Your task to perform on an android device: change the upload size in google photos Image 0: 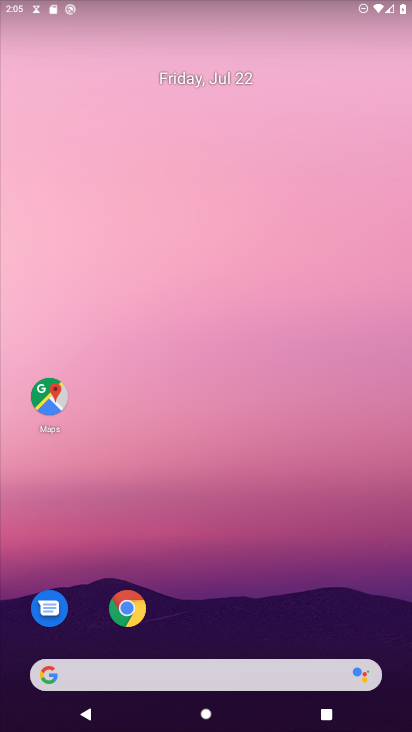
Step 0: drag from (224, 588) to (201, 382)
Your task to perform on an android device: change the upload size in google photos Image 1: 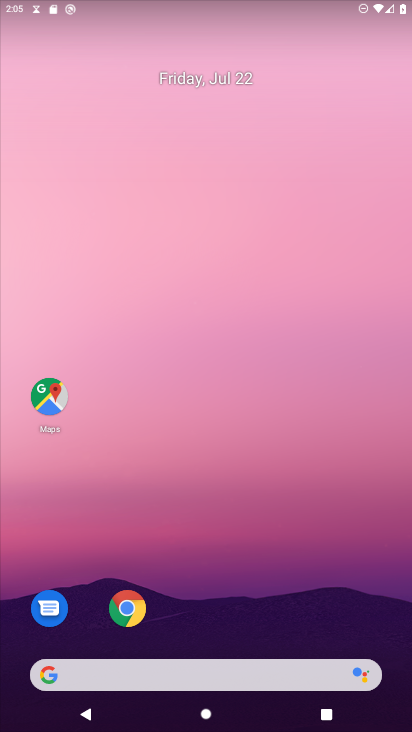
Step 1: drag from (240, 633) to (233, 142)
Your task to perform on an android device: change the upload size in google photos Image 2: 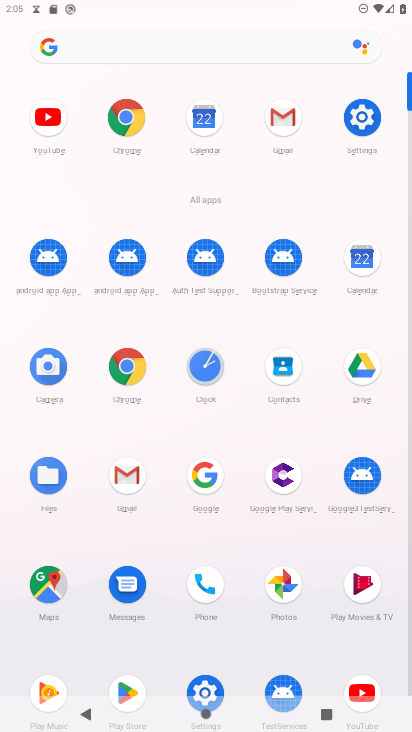
Step 2: click (278, 583)
Your task to perform on an android device: change the upload size in google photos Image 3: 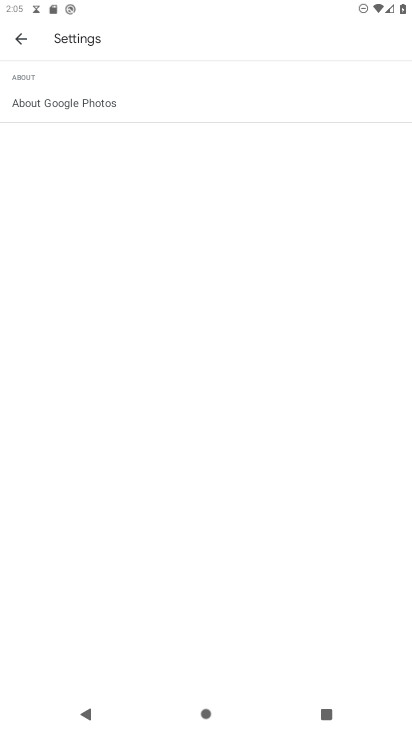
Step 3: click (22, 38)
Your task to perform on an android device: change the upload size in google photos Image 4: 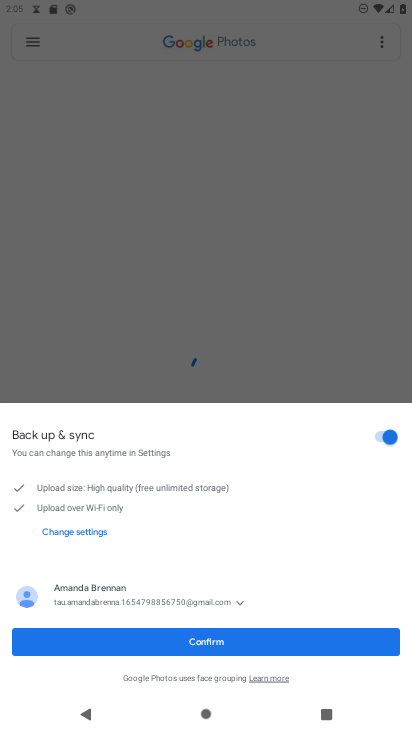
Step 4: click (135, 637)
Your task to perform on an android device: change the upload size in google photos Image 5: 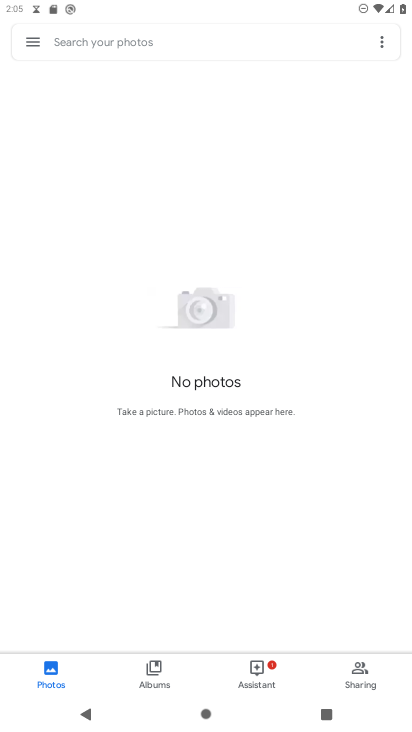
Step 5: click (35, 53)
Your task to perform on an android device: change the upload size in google photos Image 6: 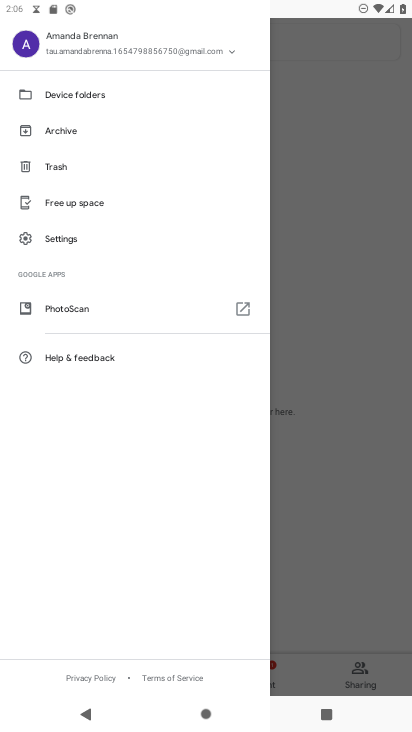
Step 6: click (85, 239)
Your task to perform on an android device: change the upload size in google photos Image 7: 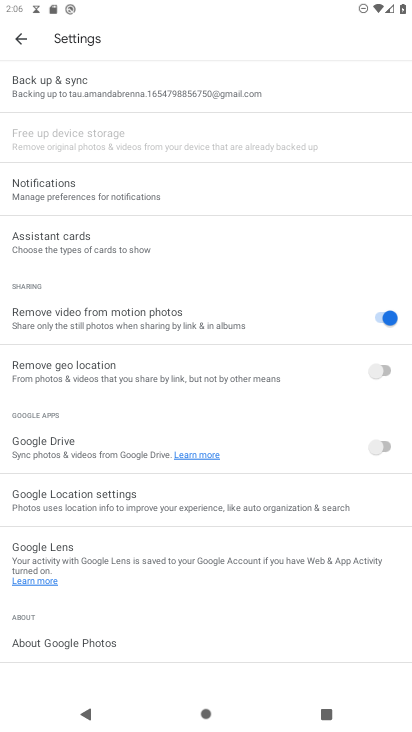
Step 7: click (127, 96)
Your task to perform on an android device: change the upload size in google photos Image 8: 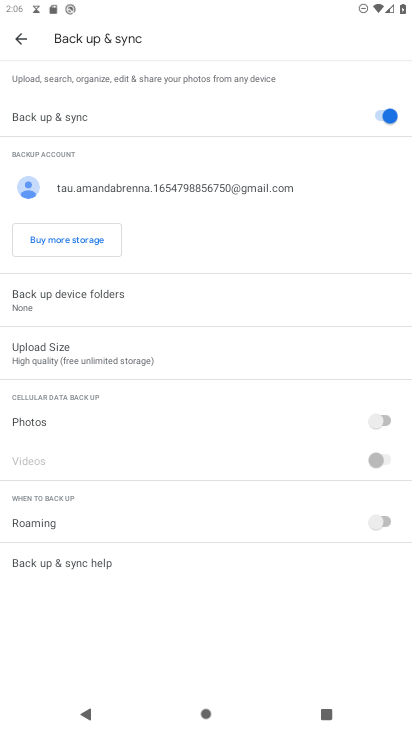
Step 8: click (115, 357)
Your task to perform on an android device: change the upload size in google photos Image 9: 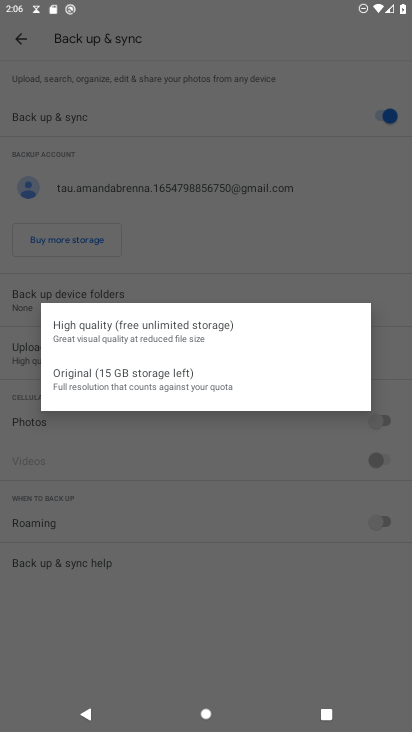
Step 9: click (203, 378)
Your task to perform on an android device: change the upload size in google photos Image 10: 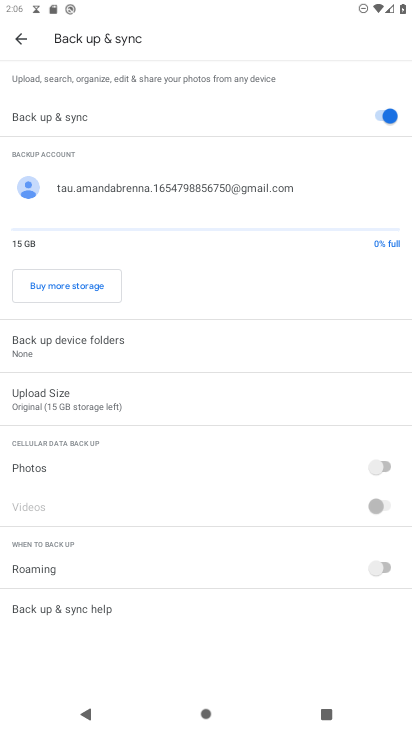
Step 10: task complete